Your task to perform on an android device: Open notification settings Image 0: 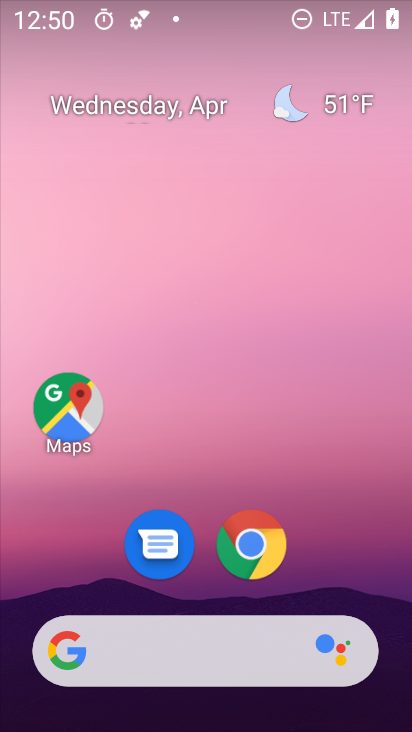
Step 0: drag from (348, 570) to (335, 129)
Your task to perform on an android device: Open notification settings Image 1: 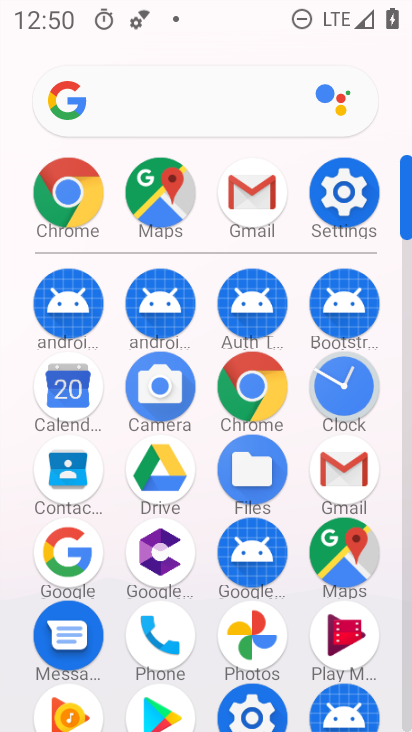
Step 1: click (339, 201)
Your task to perform on an android device: Open notification settings Image 2: 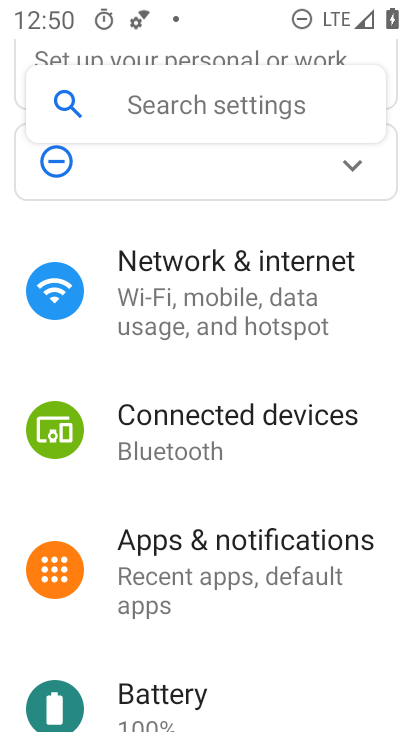
Step 2: drag from (378, 651) to (384, 462)
Your task to perform on an android device: Open notification settings Image 3: 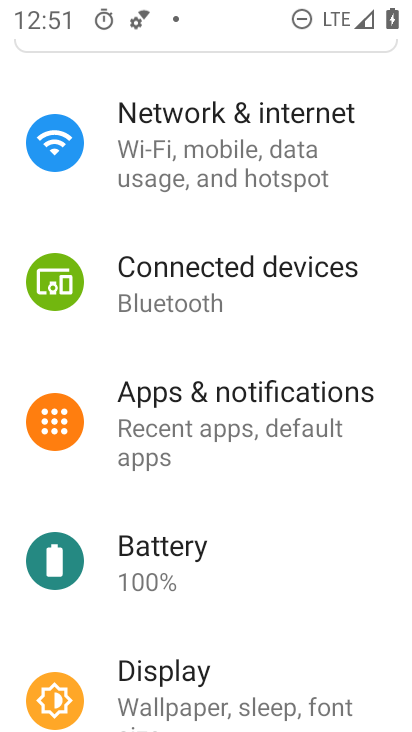
Step 3: drag from (346, 643) to (364, 417)
Your task to perform on an android device: Open notification settings Image 4: 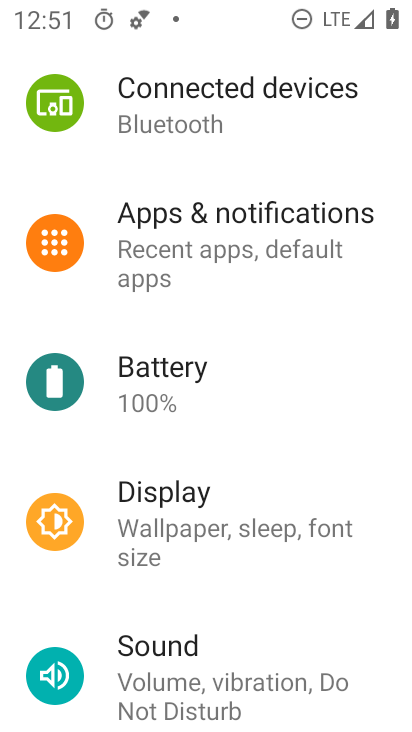
Step 4: drag from (362, 656) to (372, 428)
Your task to perform on an android device: Open notification settings Image 5: 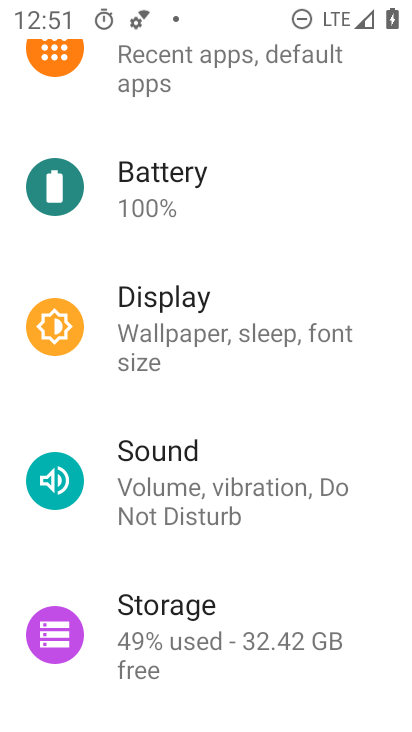
Step 5: drag from (369, 660) to (368, 495)
Your task to perform on an android device: Open notification settings Image 6: 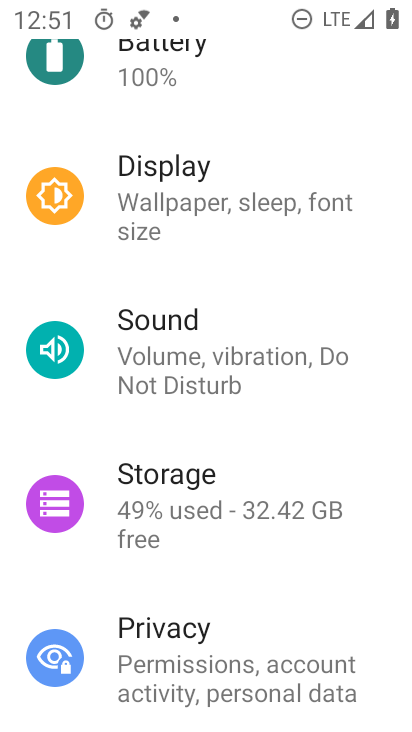
Step 6: drag from (377, 673) to (387, 414)
Your task to perform on an android device: Open notification settings Image 7: 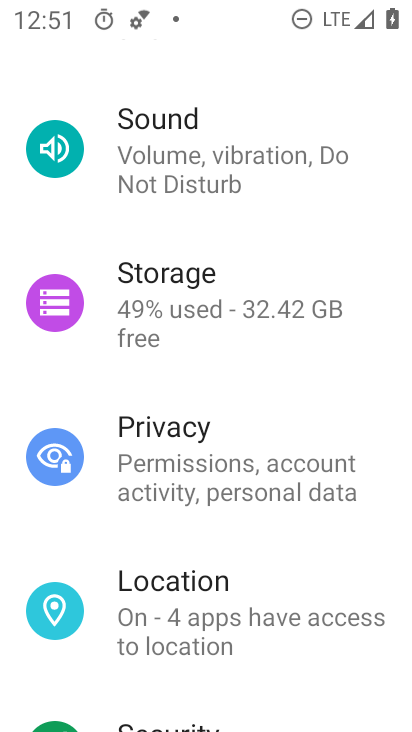
Step 7: drag from (360, 656) to (381, 459)
Your task to perform on an android device: Open notification settings Image 8: 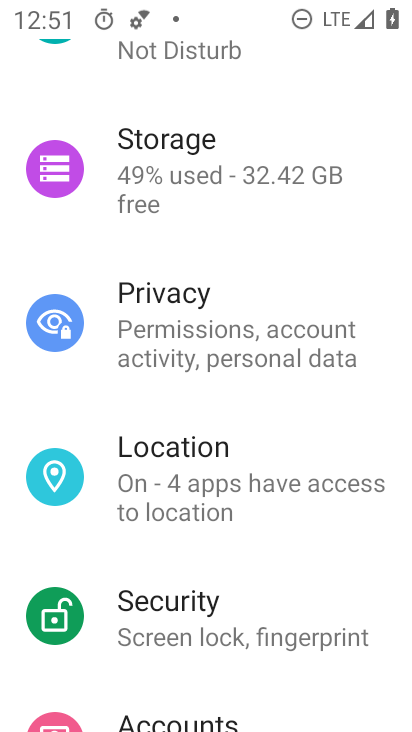
Step 8: drag from (370, 663) to (380, 409)
Your task to perform on an android device: Open notification settings Image 9: 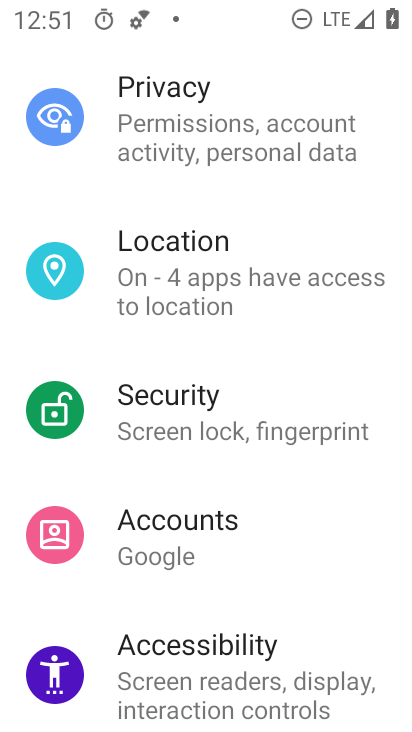
Step 9: drag from (345, 592) to (358, 383)
Your task to perform on an android device: Open notification settings Image 10: 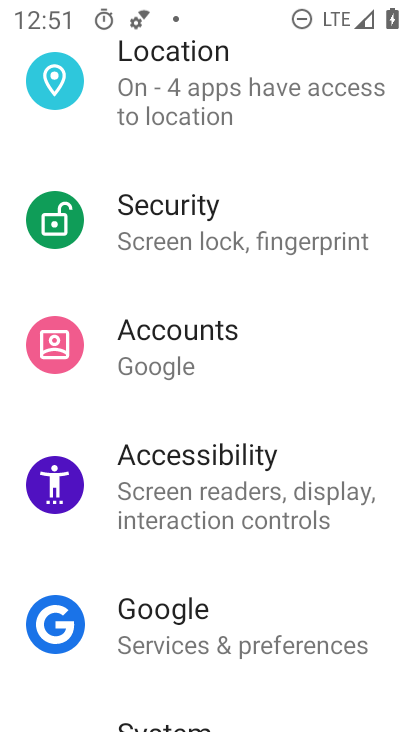
Step 10: drag from (369, 699) to (373, 486)
Your task to perform on an android device: Open notification settings Image 11: 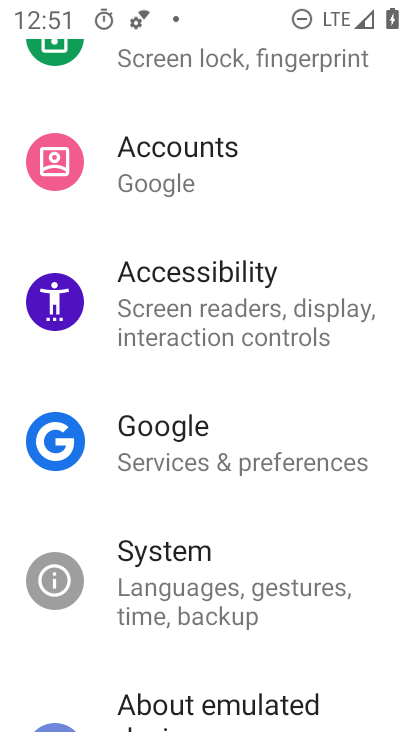
Step 11: drag from (360, 597) to (366, 427)
Your task to perform on an android device: Open notification settings Image 12: 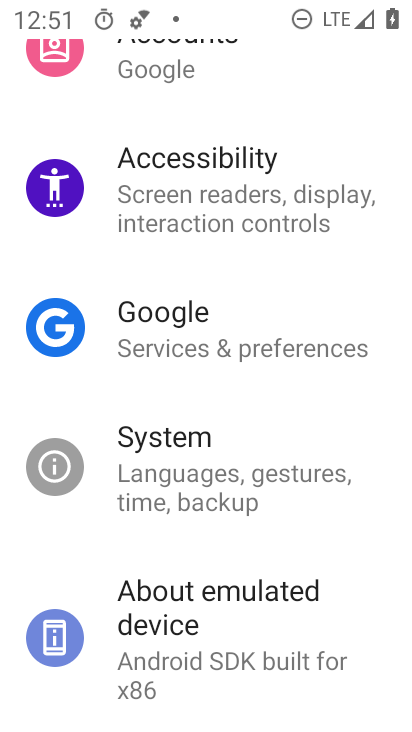
Step 12: drag from (356, 666) to (364, 434)
Your task to perform on an android device: Open notification settings Image 13: 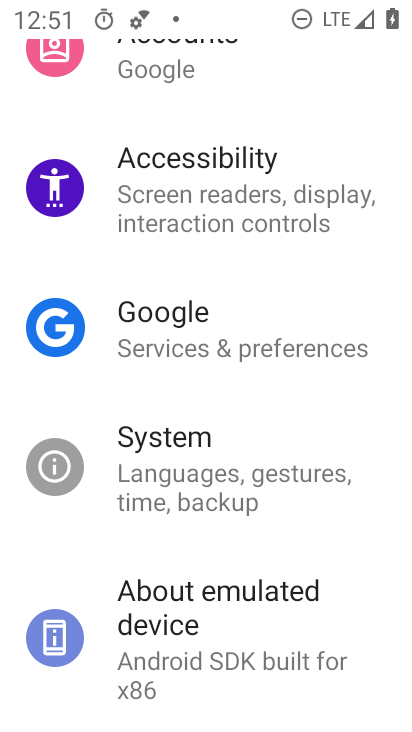
Step 13: drag from (363, 274) to (362, 492)
Your task to perform on an android device: Open notification settings Image 14: 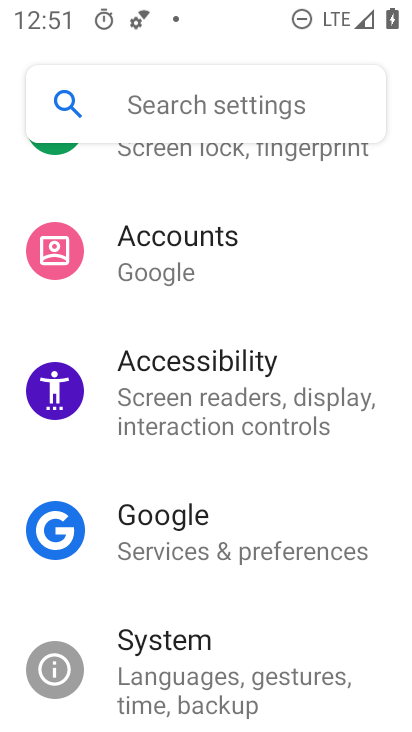
Step 14: drag from (372, 287) to (367, 505)
Your task to perform on an android device: Open notification settings Image 15: 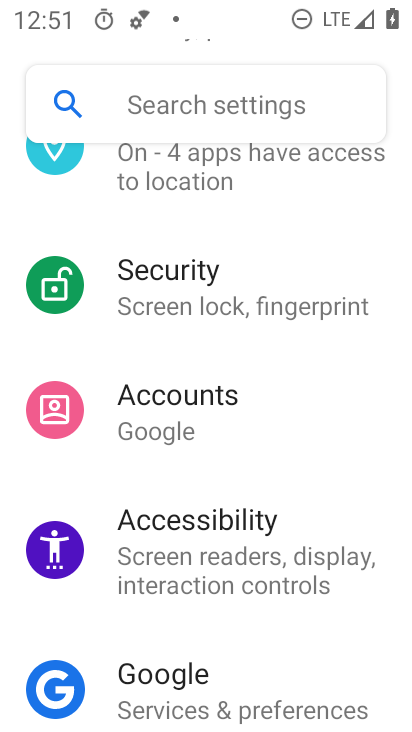
Step 15: drag from (387, 261) to (383, 450)
Your task to perform on an android device: Open notification settings Image 16: 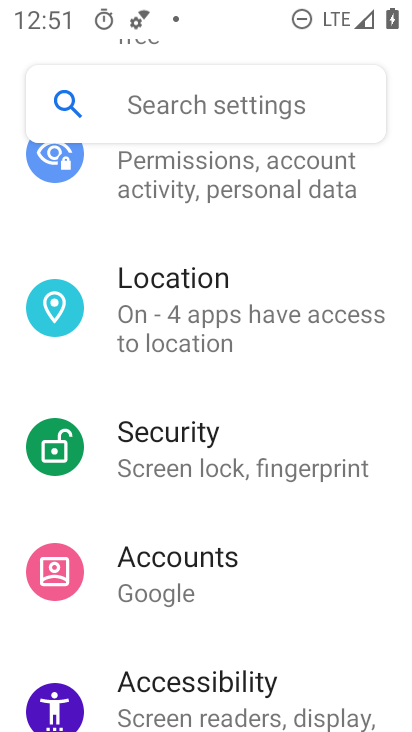
Step 16: drag from (386, 237) to (380, 399)
Your task to perform on an android device: Open notification settings Image 17: 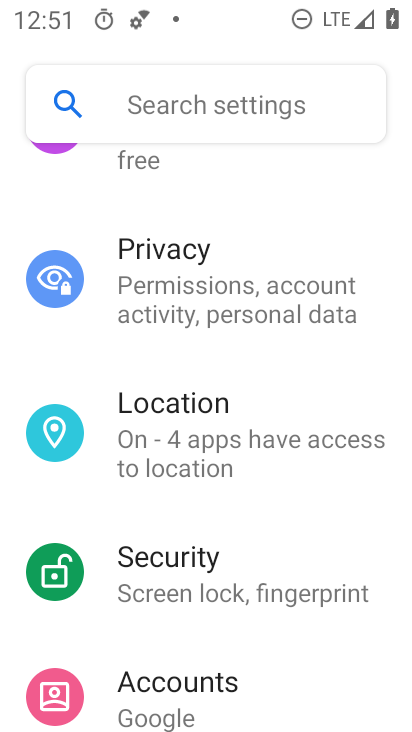
Step 17: drag from (379, 227) to (375, 407)
Your task to perform on an android device: Open notification settings Image 18: 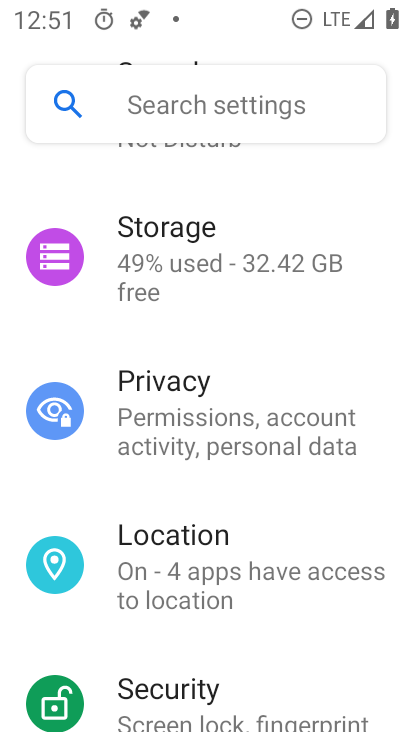
Step 18: drag from (372, 218) to (369, 444)
Your task to perform on an android device: Open notification settings Image 19: 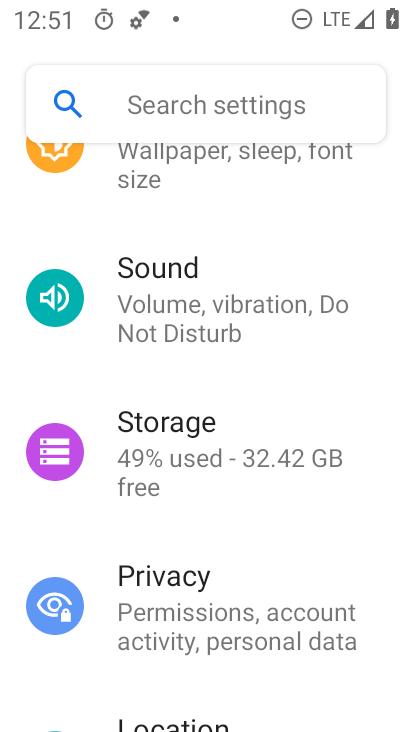
Step 19: drag from (378, 222) to (377, 438)
Your task to perform on an android device: Open notification settings Image 20: 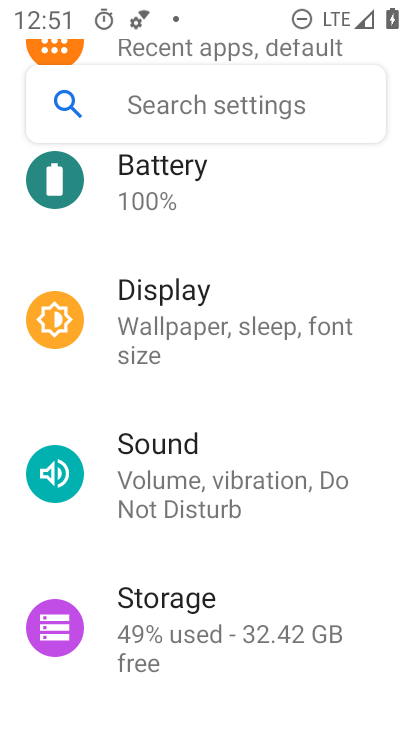
Step 20: drag from (366, 235) to (355, 449)
Your task to perform on an android device: Open notification settings Image 21: 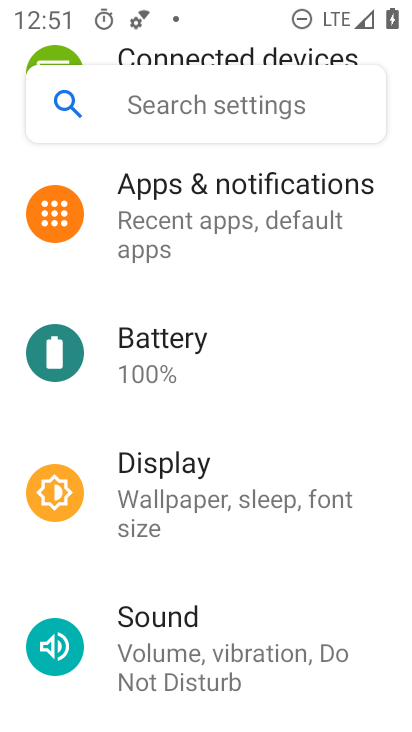
Step 21: click (300, 185)
Your task to perform on an android device: Open notification settings Image 22: 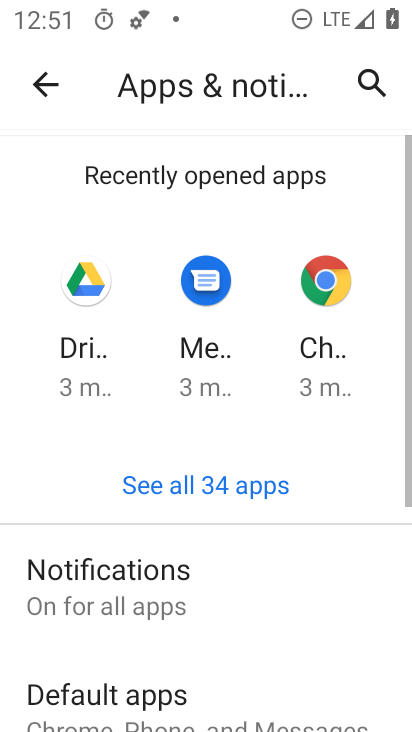
Step 22: click (90, 591)
Your task to perform on an android device: Open notification settings Image 23: 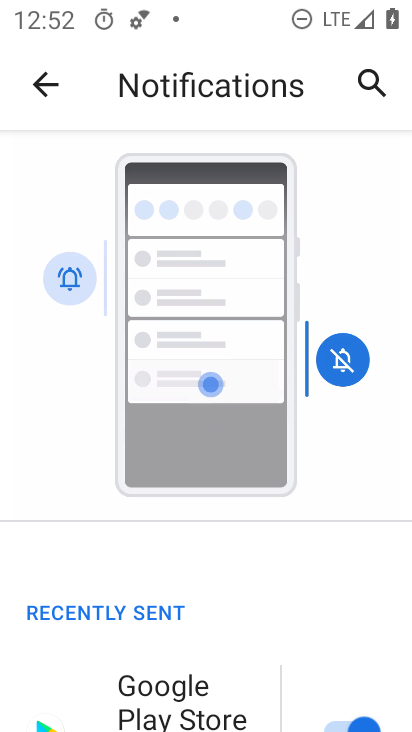
Step 23: task complete